Your task to perform on an android device: Open display settings Image 0: 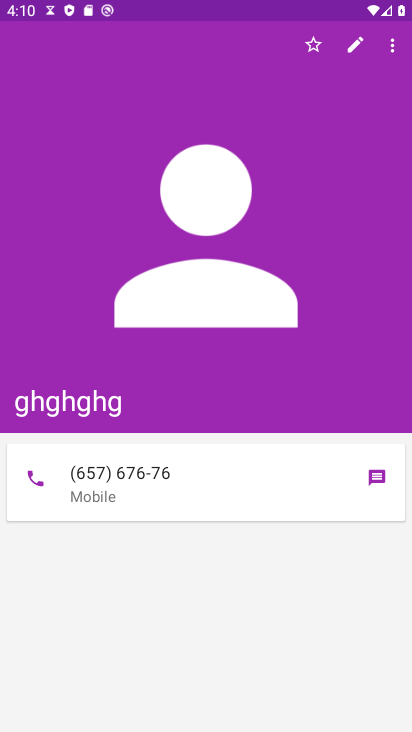
Step 0: press home button
Your task to perform on an android device: Open display settings Image 1: 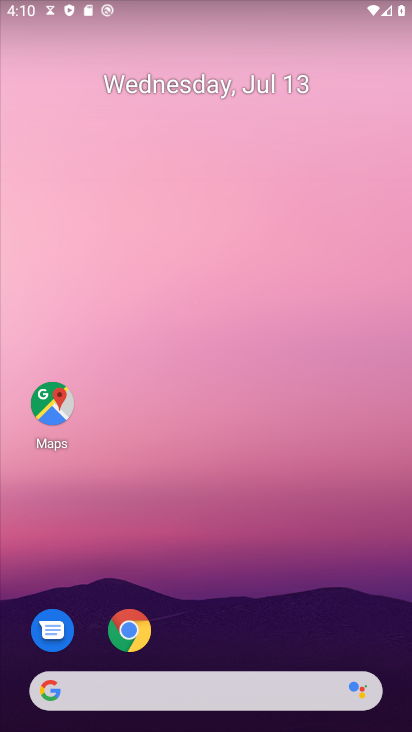
Step 1: drag from (210, 631) to (203, 232)
Your task to perform on an android device: Open display settings Image 2: 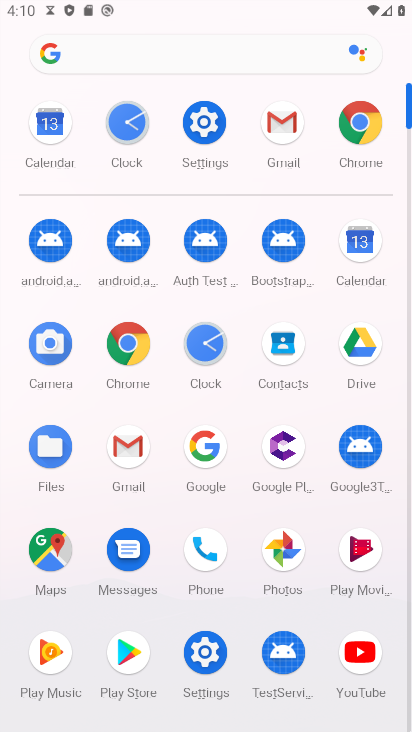
Step 2: click (213, 133)
Your task to perform on an android device: Open display settings Image 3: 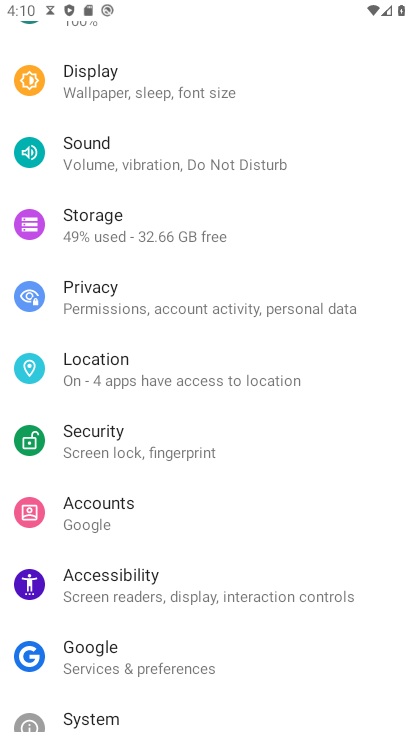
Step 3: click (93, 91)
Your task to perform on an android device: Open display settings Image 4: 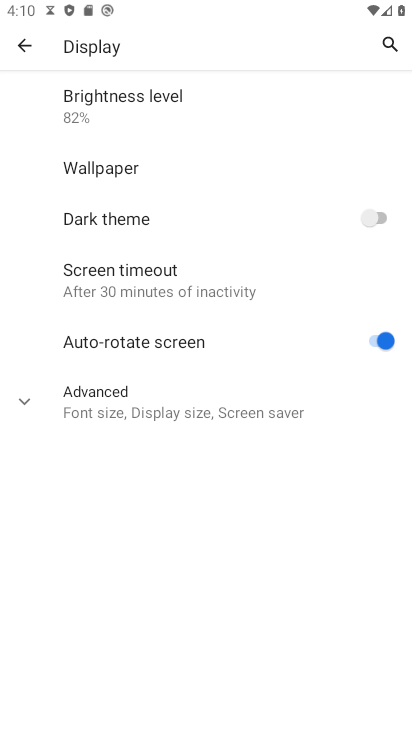
Step 4: task complete